Your task to perform on an android device: see tabs open on other devices in the chrome app Image 0: 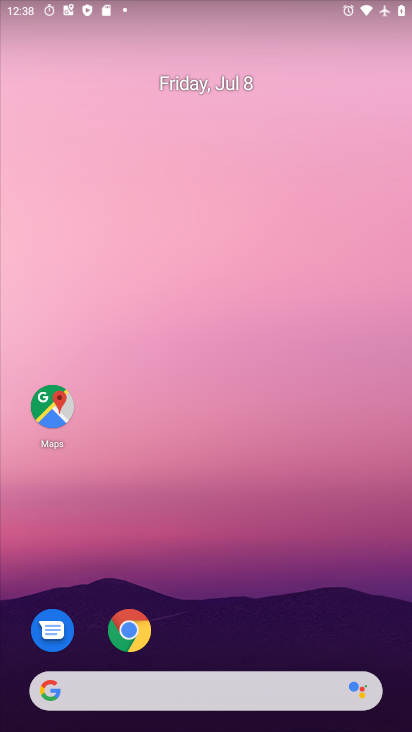
Step 0: drag from (210, 622) to (192, 190)
Your task to perform on an android device: see tabs open on other devices in the chrome app Image 1: 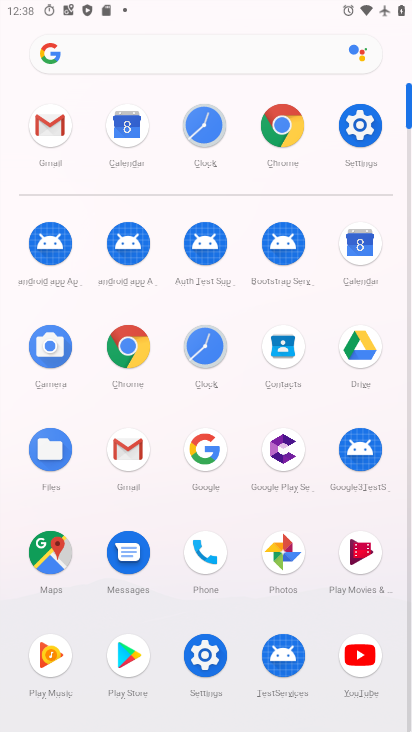
Step 1: click (275, 130)
Your task to perform on an android device: see tabs open on other devices in the chrome app Image 2: 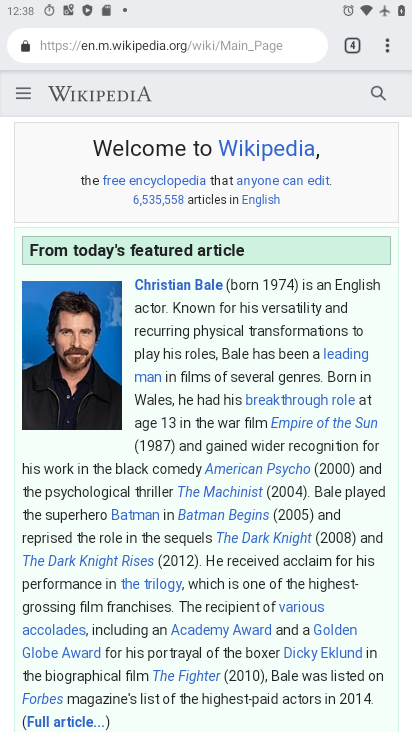
Step 2: click (24, 85)
Your task to perform on an android device: see tabs open on other devices in the chrome app Image 3: 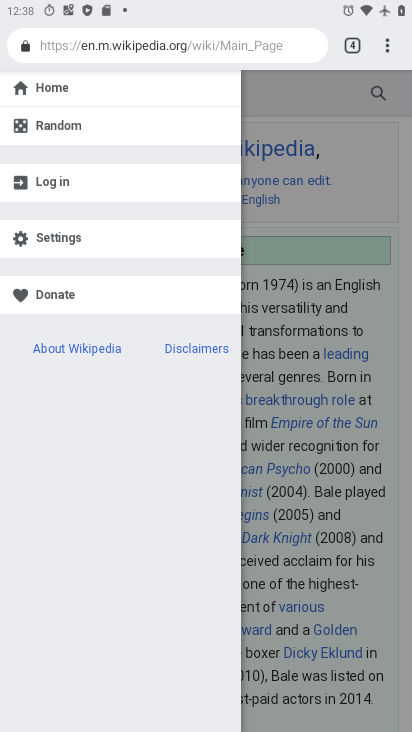
Step 3: click (257, 105)
Your task to perform on an android device: see tabs open on other devices in the chrome app Image 4: 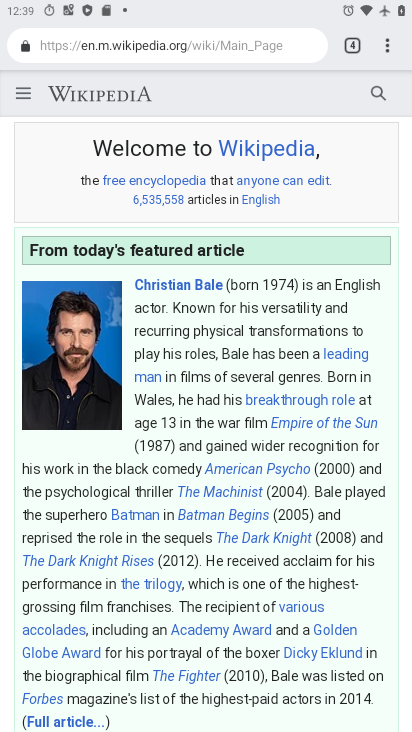
Step 4: click (388, 43)
Your task to perform on an android device: see tabs open on other devices in the chrome app Image 5: 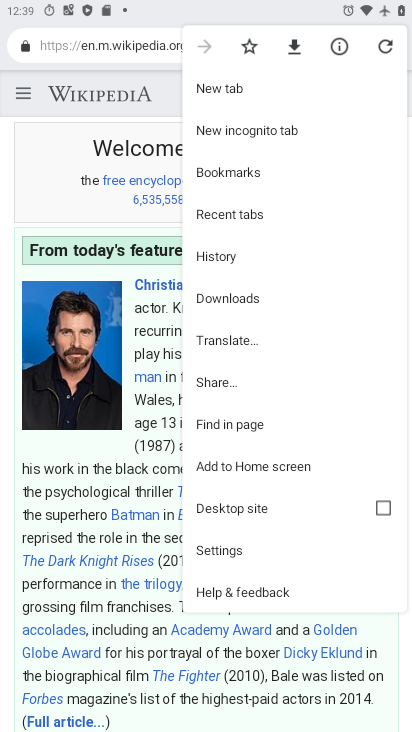
Step 5: click (262, 207)
Your task to perform on an android device: see tabs open on other devices in the chrome app Image 6: 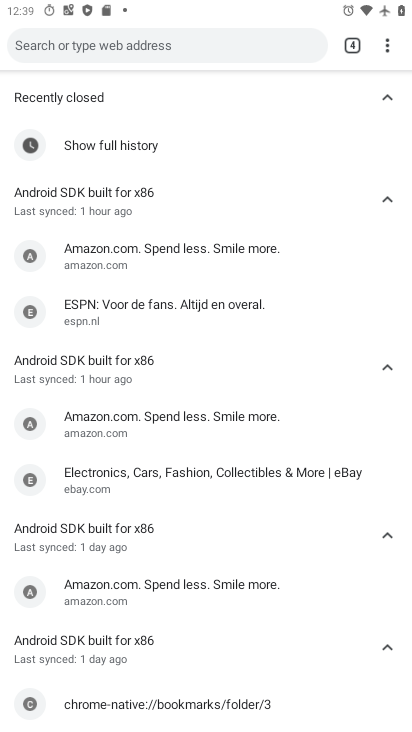
Step 6: task complete